Your task to perform on an android device: clear all cookies in the chrome app Image 0: 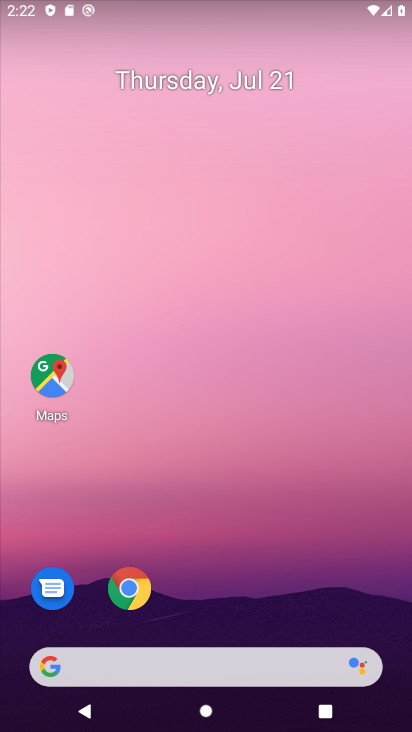
Step 0: click (132, 590)
Your task to perform on an android device: clear all cookies in the chrome app Image 1: 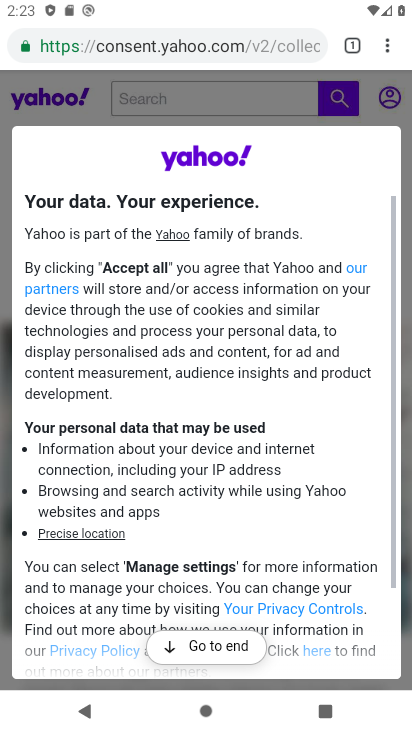
Step 1: click (390, 42)
Your task to perform on an android device: clear all cookies in the chrome app Image 2: 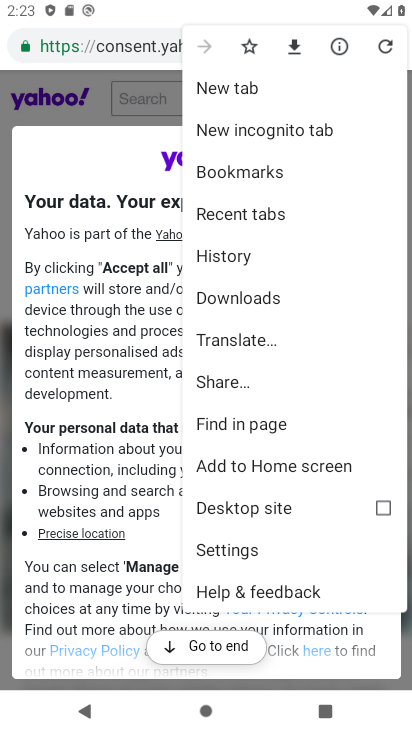
Step 2: click (236, 250)
Your task to perform on an android device: clear all cookies in the chrome app Image 3: 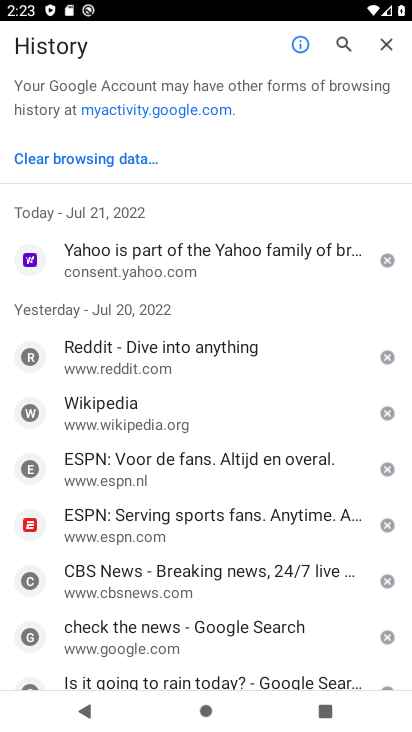
Step 3: click (97, 159)
Your task to perform on an android device: clear all cookies in the chrome app Image 4: 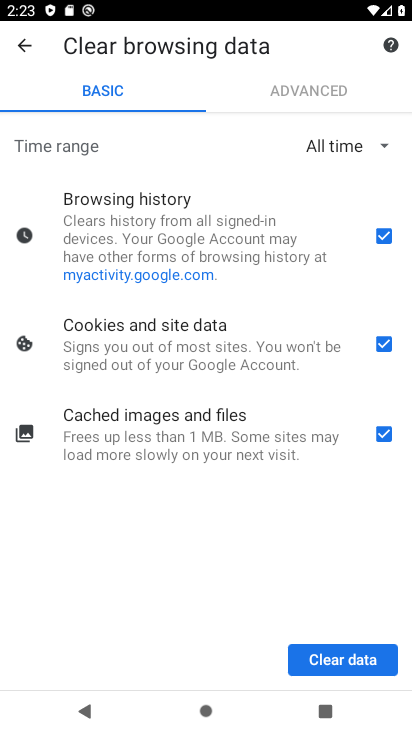
Step 4: click (380, 234)
Your task to perform on an android device: clear all cookies in the chrome app Image 5: 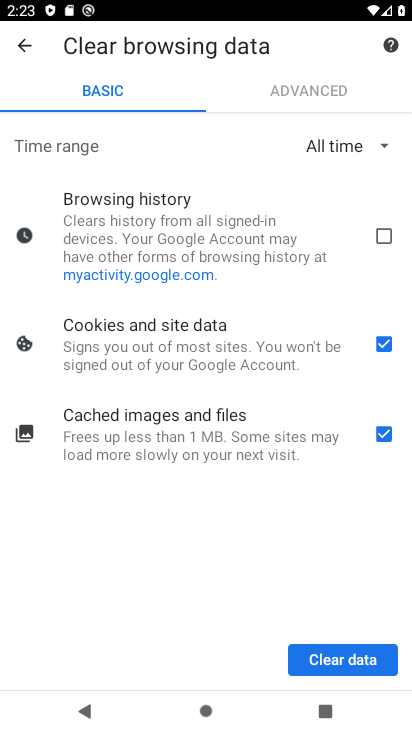
Step 5: click (382, 433)
Your task to perform on an android device: clear all cookies in the chrome app Image 6: 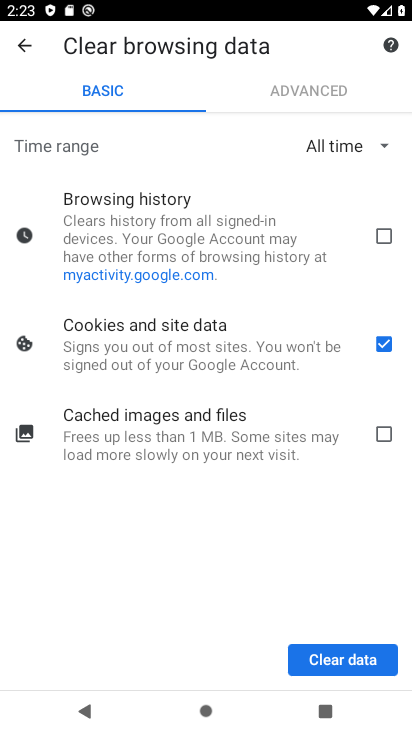
Step 6: click (340, 663)
Your task to perform on an android device: clear all cookies in the chrome app Image 7: 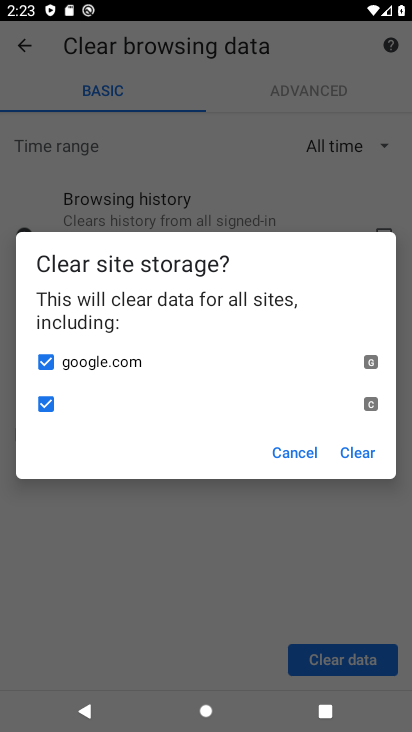
Step 7: click (356, 453)
Your task to perform on an android device: clear all cookies in the chrome app Image 8: 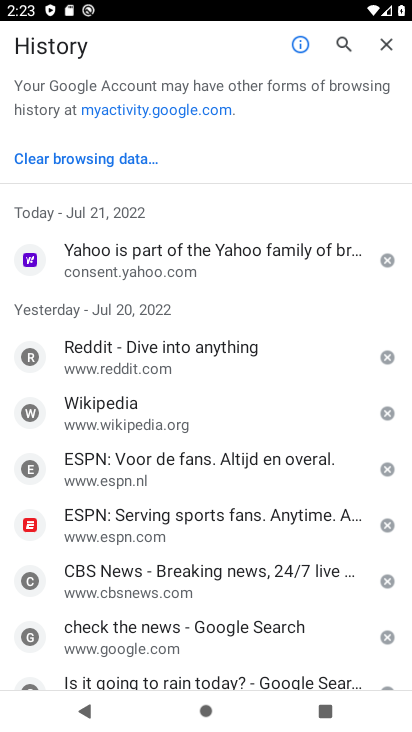
Step 8: task complete